Your task to perform on an android device: toggle notifications settings in the gmail app Image 0: 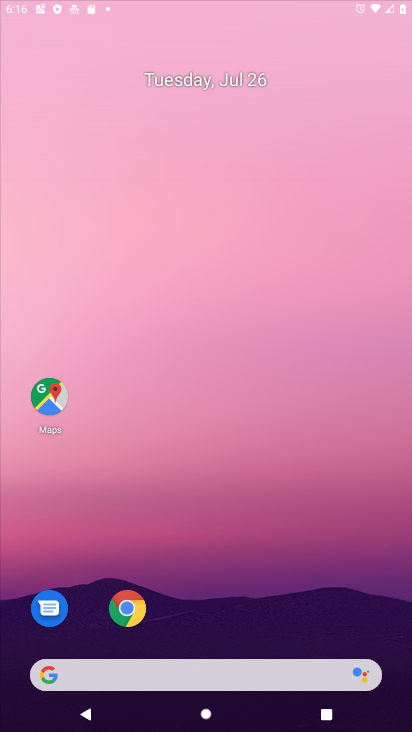
Step 0: press home button
Your task to perform on an android device: toggle notifications settings in the gmail app Image 1: 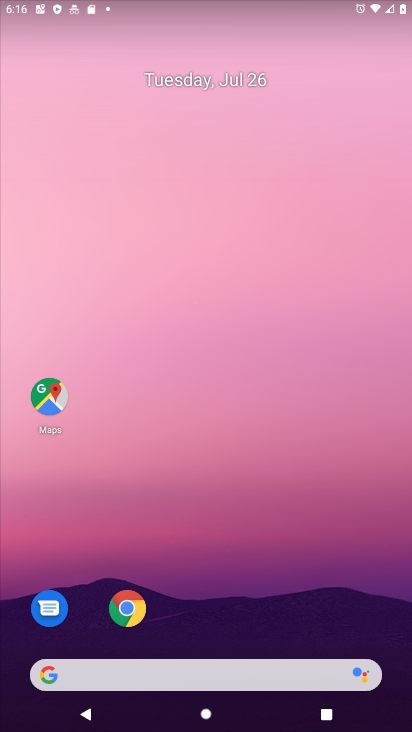
Step 1: drag from (262, 638) to (275, 3)
Your task to perform on an android device: toggle notifications settings in the gmail app Image 2: 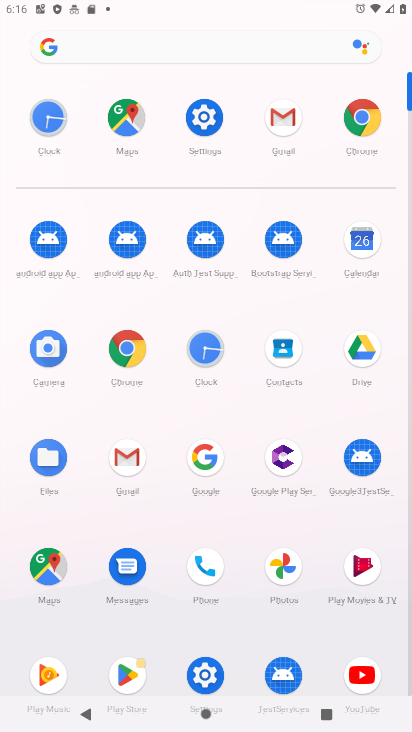
Step 2: click (288, 116)
Your task to perform on an android device: toggle notifications settings in the gmail app Image 3: 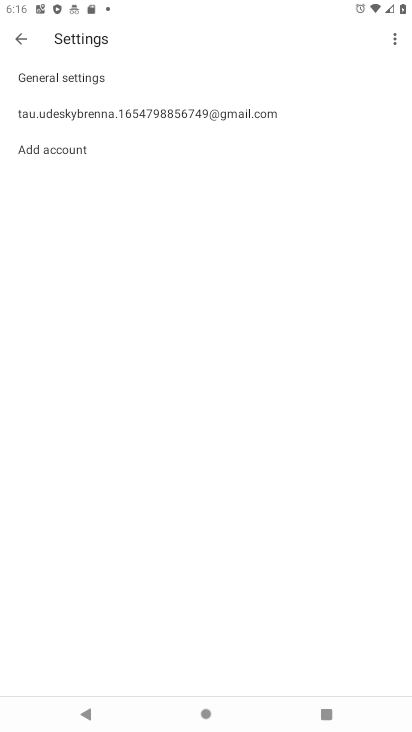
Step 3: click (62, 111)
Your task to perform on an android device: toggle notifications settings in the gmail app Image 4: 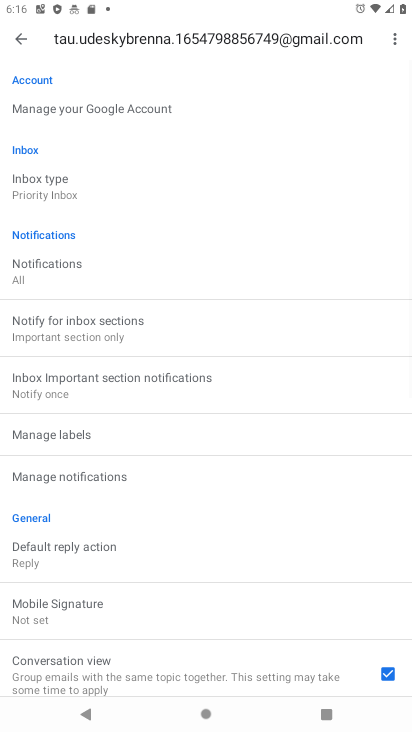
Step 4: click (70, 480)
Your task to perform on an android device: toggle notifications settings in the gmail app Image 5: 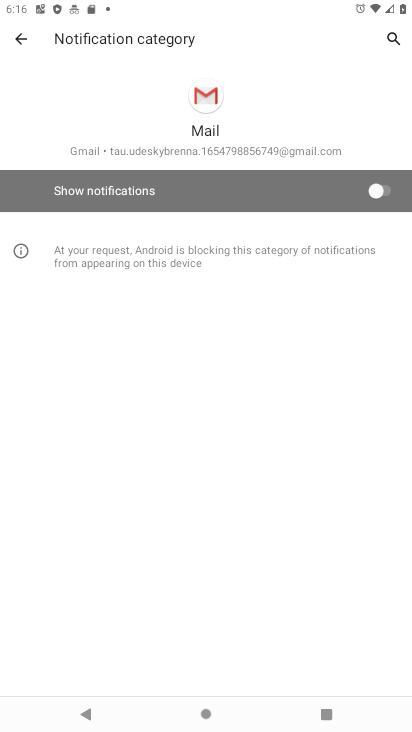
Step 5: click (378, 190)
Your task to perform on an android device: toggle notifications settings in the gmail app Image 6: 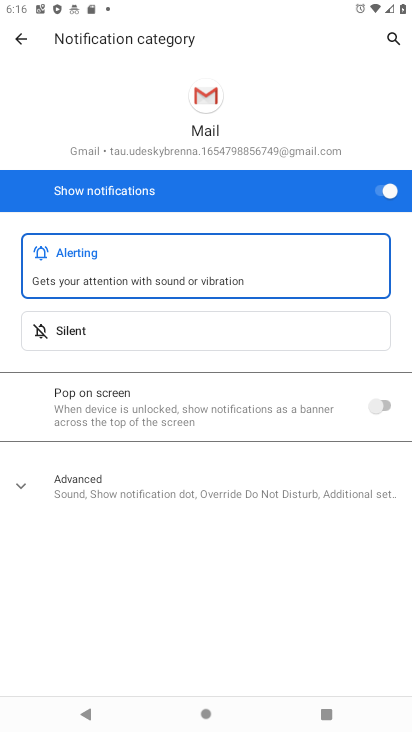
Step 6: task complete